Your task to perform on an android device: make emails show in primary in the gmail app Image 0: 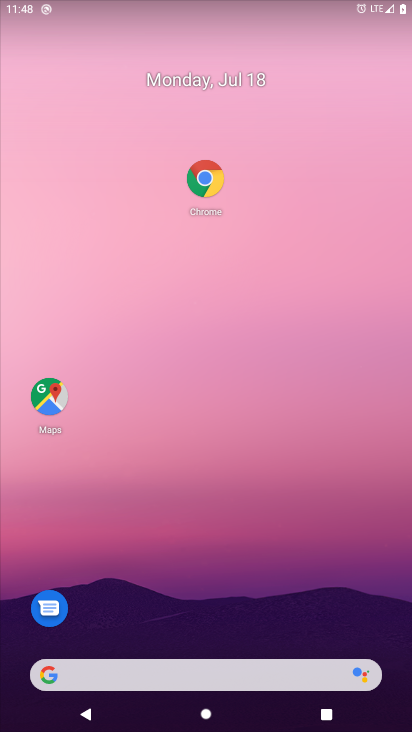
Step 0: drag from (18, 695) to (188, 253)
Your task to perform on an android device: make emails show in primary in the gmail app Image 1: 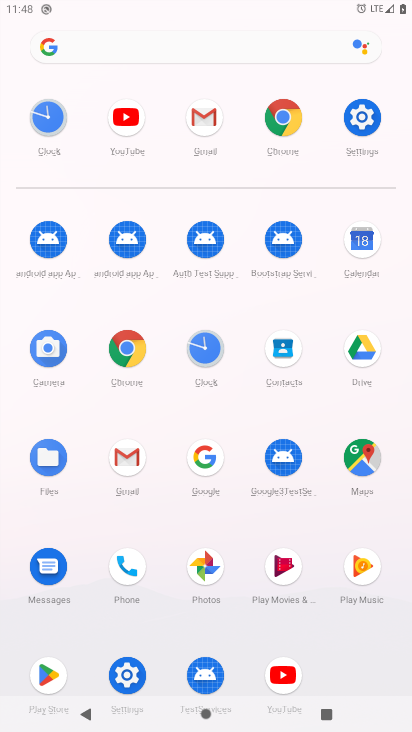
Step 1: click (139, 468)
Your task to perform on an android device: make emails show in primary in the gmail app Image 2: 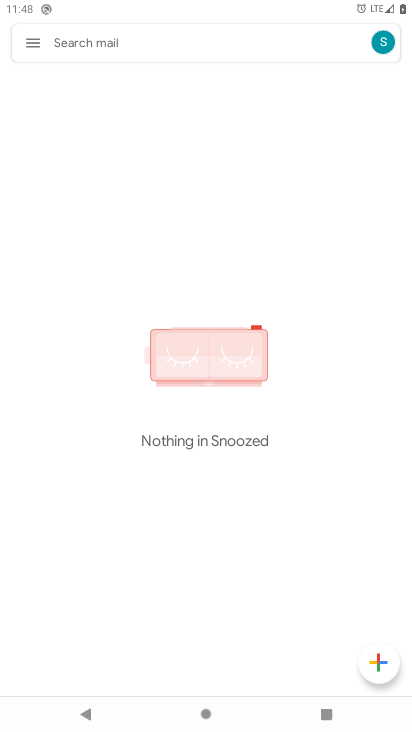
Step 2: click (31, 48)
Your task to perform on an android device: make emails show in primary in the gmail app Image 3: 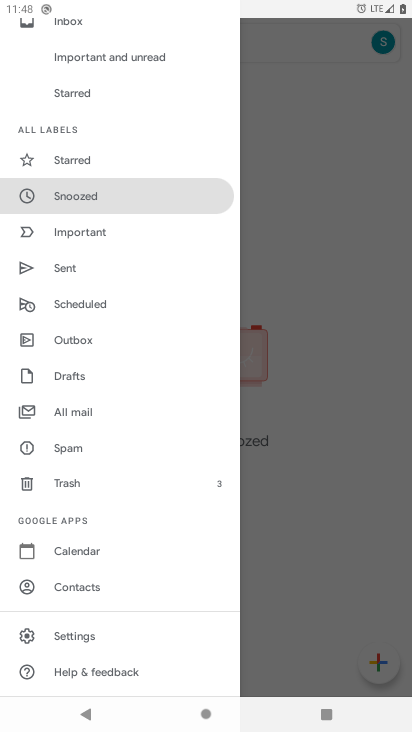
Step 3: drag from (121, 161) to (121, 477)
Your task to perform on an android device: make emails show in primary in the gmail app Image 4: 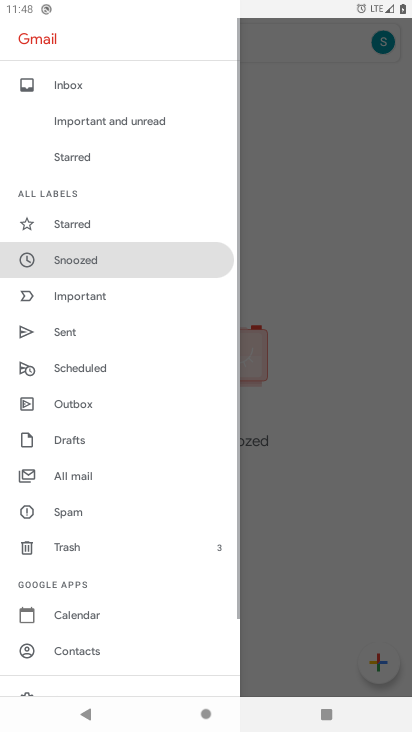
Step 4: click (89, 79)
Your task to perform on an android device: make emails show in primary in the gmail app Image 5: 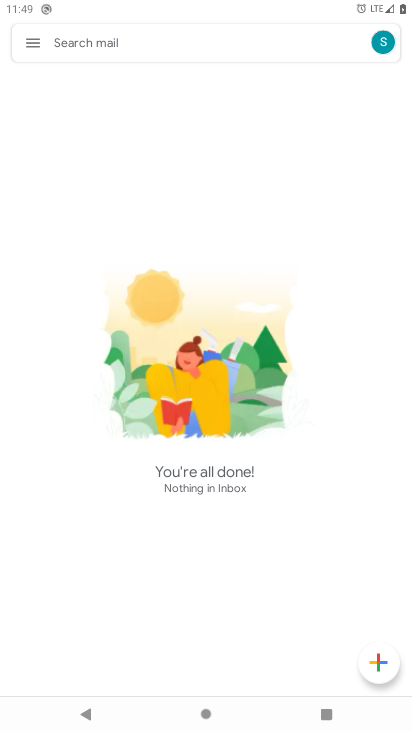
Step 5: click (29, 48)
Your task to perform on an android device: make emails show in primary in the gmail app Image 6: 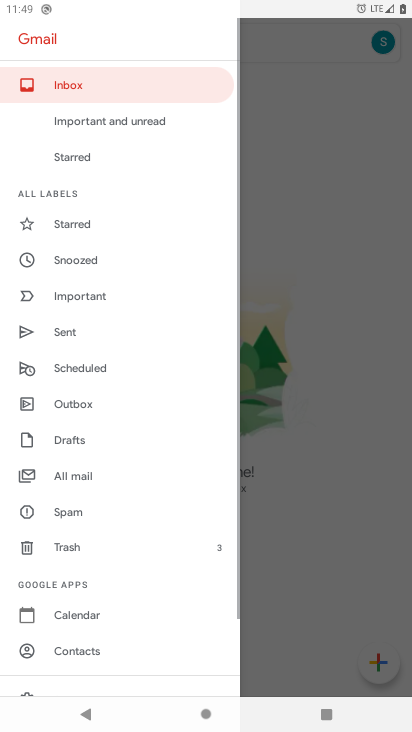
Step 6: click (119, 85)
Your task to perform on an android device: make emails show in primary in the gmail app Image 7: 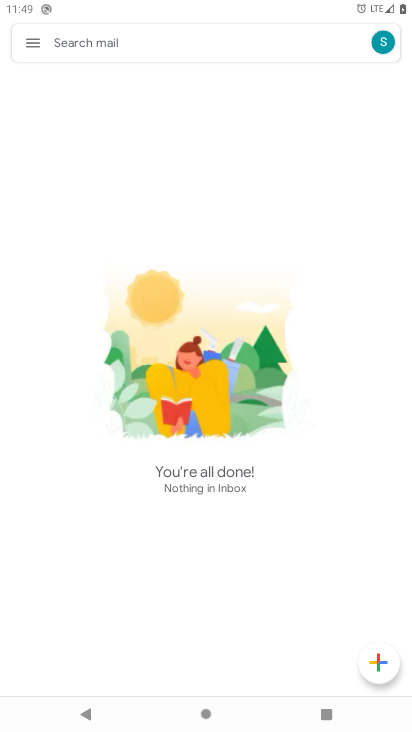
Step 7: task complete